Your task to perform on an android device: open sync settings in chrome Image 0: 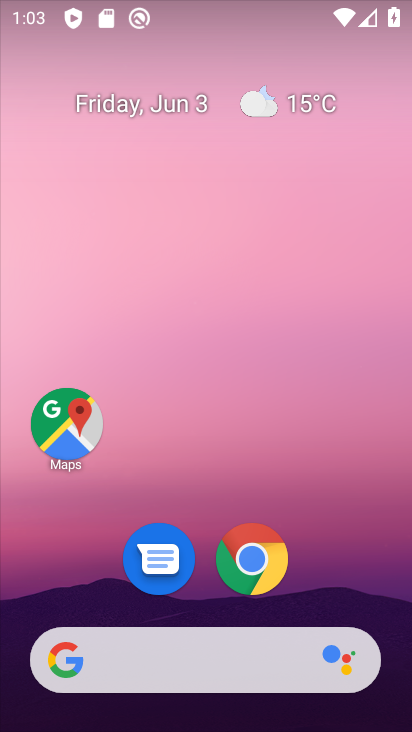
Step 0: click (263, 576)
Your task to perform on an android device: open sync settings in chrome Image 1: 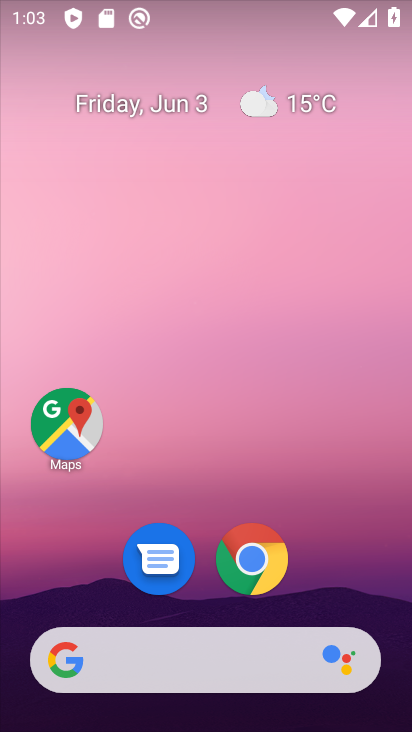
Step 1: click (263, 572)
Your task to perform on an android device: open sync settings in chrome Image 2: 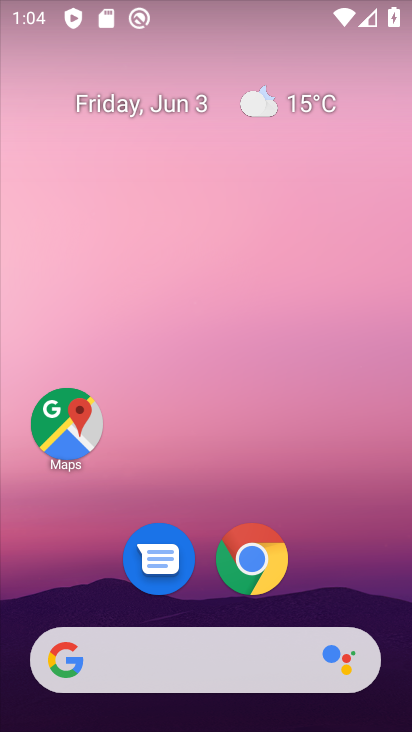
Step 2: click (243, 574)
Your task to perform on an android device: open sync settings in chrome Image 3: 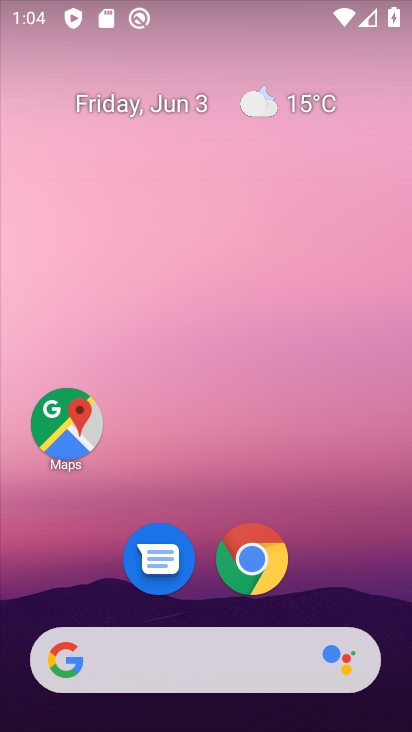
Step 3: click (244, 585)
Your task to perform on an android device: open sync settings in chrome Image 4: 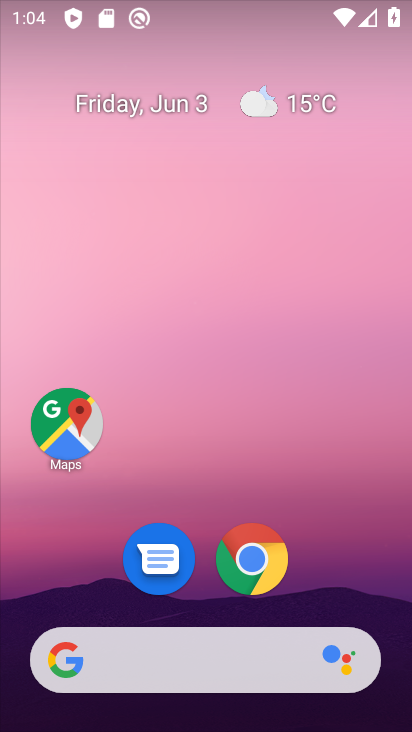
Step 4: click (239, 579)
Your task to perform on an android device: open sync settings in chrome Image 5: 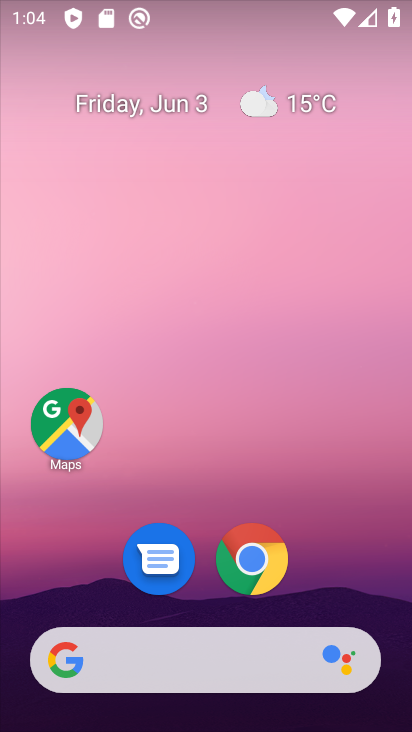
Step 5: click (244, 532)
Your task to perform on an android device: open sync settings in chrome Image 6: 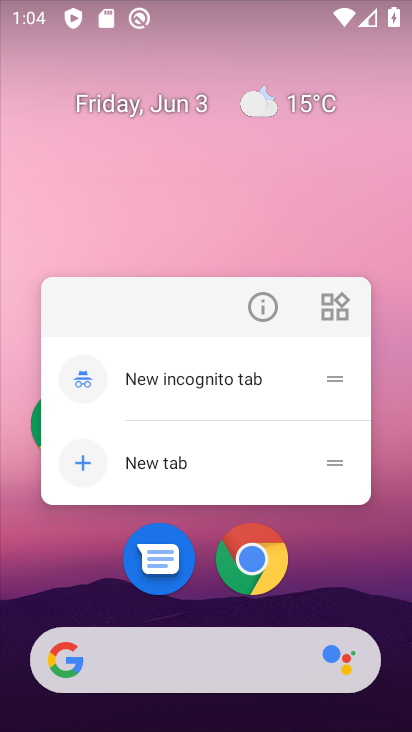
Step 6: click (251, 584)
Your task to perform on an android device: open sync settings in chrome Image 7: 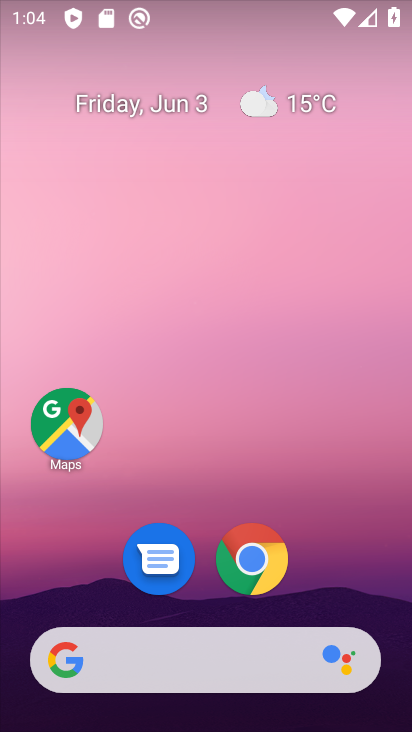
Step 7: click (258, 570)
Your task to perform on an android device: open sync settings in chrome Image 8: 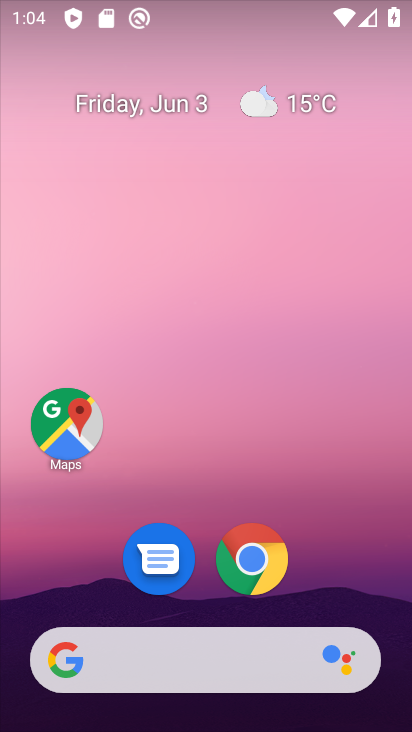
Step 8: click (270, 565)
Your task to perform on an android device: open sync settings in chrome Image 9: 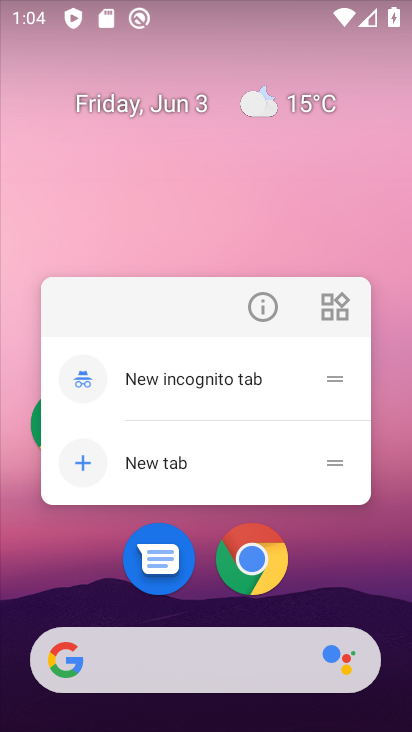
Step 9: click (272, 567)
Your task to perform on an android device: open sync settings in chrome Image 10: 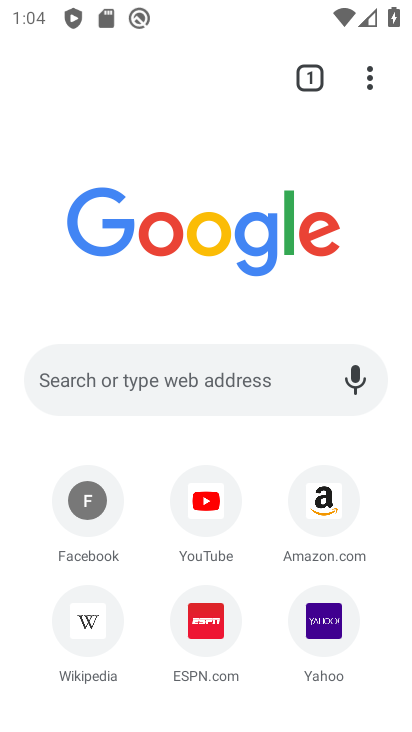
Step 10: drag from (372, 70) to (218, 632)
Your task to perform on an android device: open sync settings in chrome Image 11: 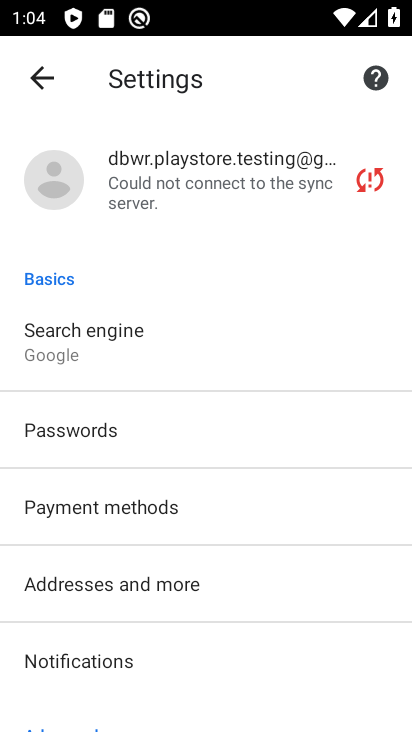
Step 11: click (225, 200)
Your task to perform on an android device: open sync settings in chrome Image 12: 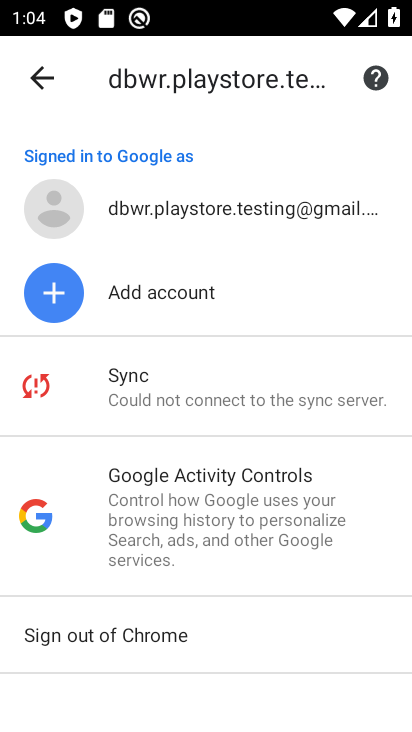
Step 12: click (236, 377)
Your task to perform on an android device: open sync settings in chrome Image 13: 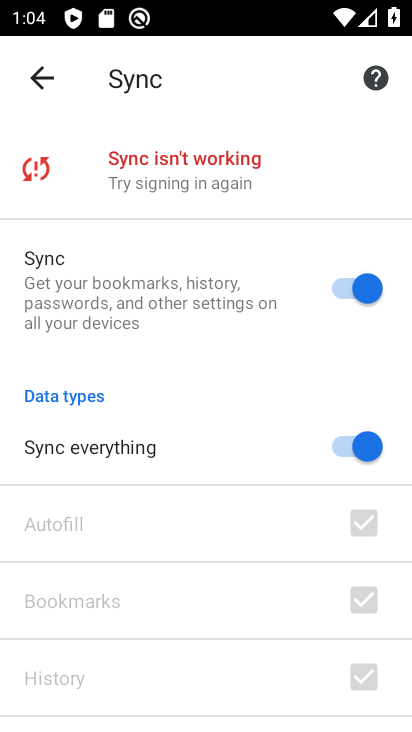
Step 13: task complete